Your task to perform on an android device: toggle pop-ups in chrome Image 0: 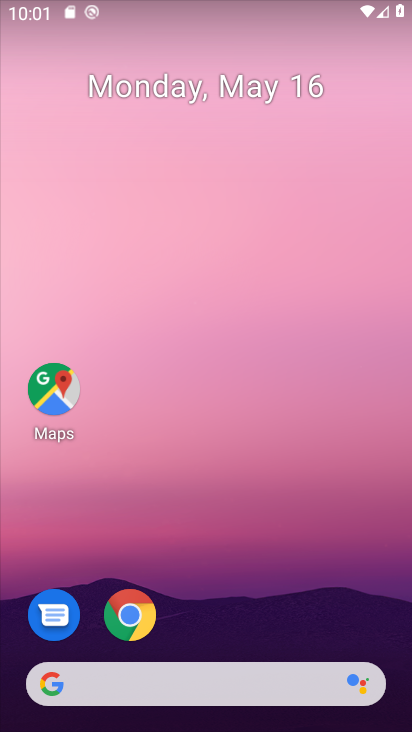
Step 0: drag from (242, 623) to (203, 29)
Your task to perform on an android device: toggle pop-ups in chrome Image 1: 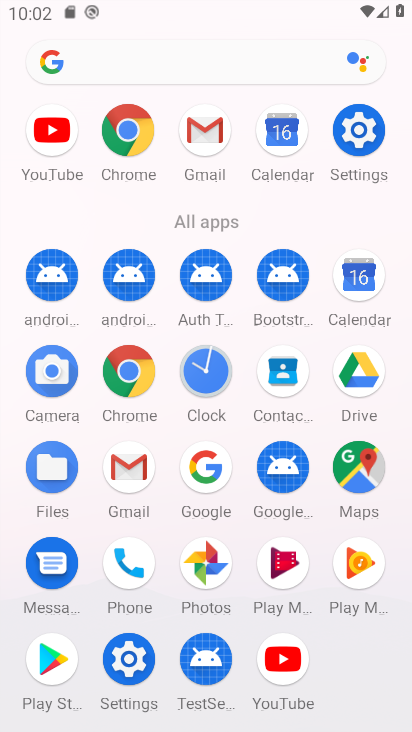
Step 1: click (130, 369)
Your task to perform on an android device: toggle pop-ups in chrome Image 2: 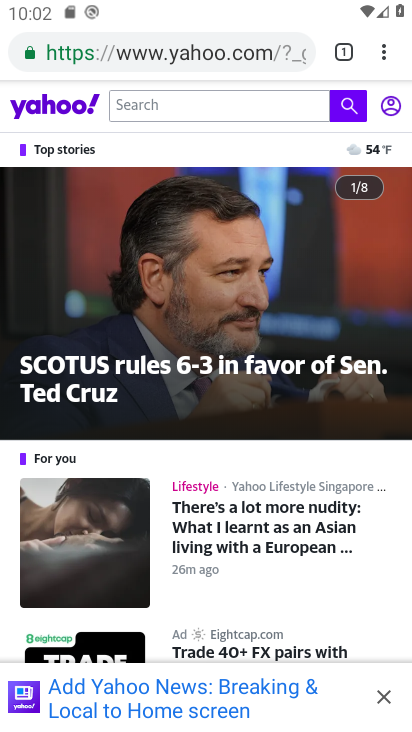
Step 2: drag from (383, 50) to (237, 629)
Your task to perform on an android device: toggle pop-ups in chrome Image 3: 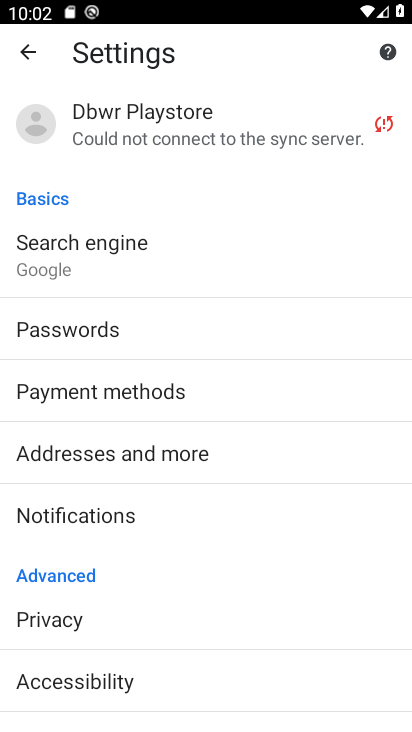
Step 3: drag from (189, 540) to (207, 275)
Your task to perform on an android device: toggle pop-ups in chrome Image 4: 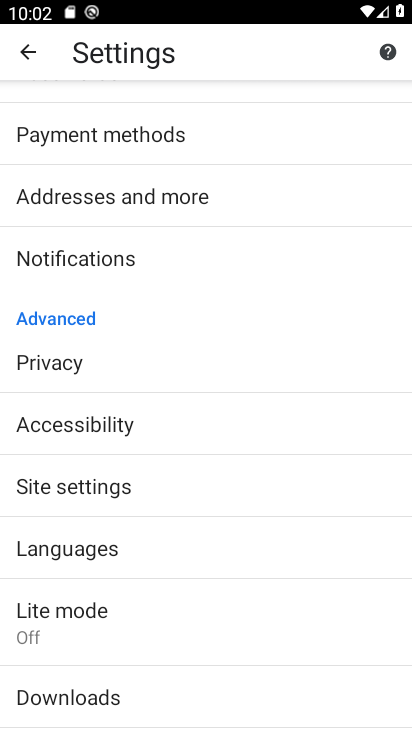
Step 4: click (110, 484)
Your task to perform on an android device: toggle pop-ups in chrome Image 5: 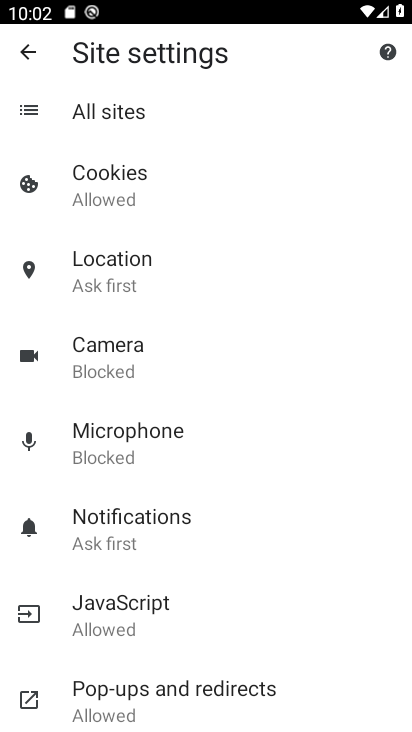
Step 5: click (180, 687)
Your task to perform on an android device: toggle pop-ups in chrome Image 6: 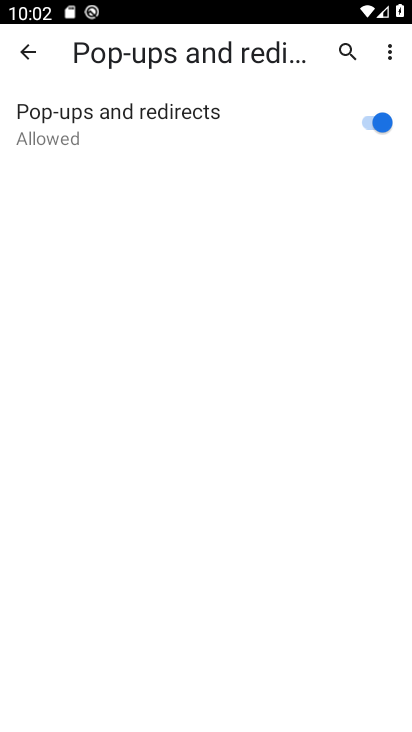
Step 6: click (366, 105)
Your task to perform on an android device: toggle pop-ups in chrome Image 7: 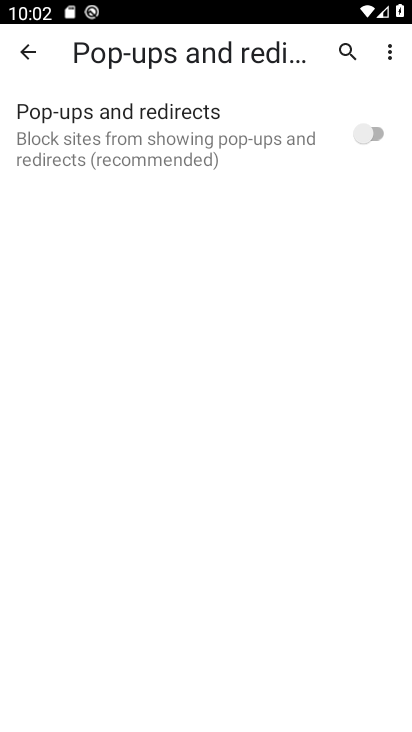
Step 7: task complete